Your task to perform on an android device: open app "Facebook Lite" (install if not already installed) and enter user name: "suppers@inbox.com" and password: "downplayed" Image 0: 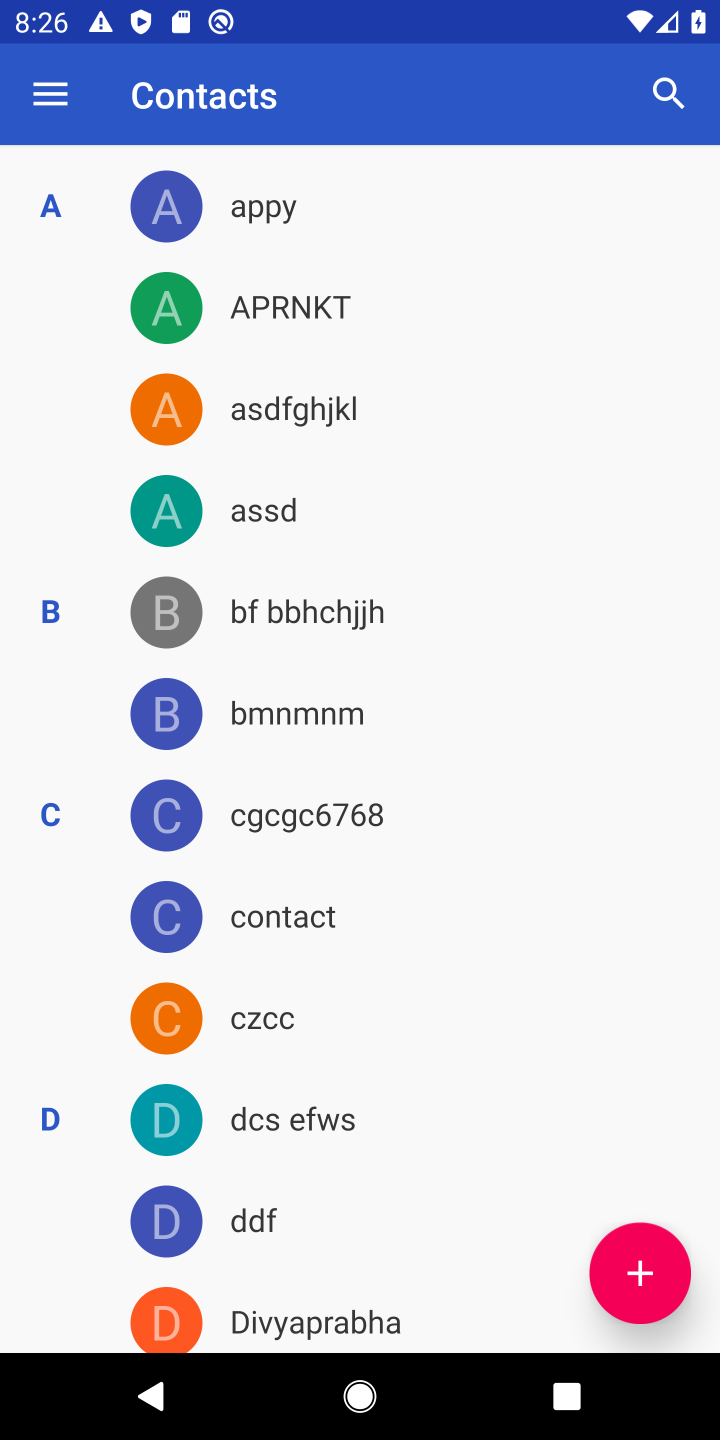
Step 0: press home button
Your task to perform on an android device: open app "Facebook Lite" (install if not already installed) and enter user name: "suppers@inbox.com" and password: "downplayed" Image 1: 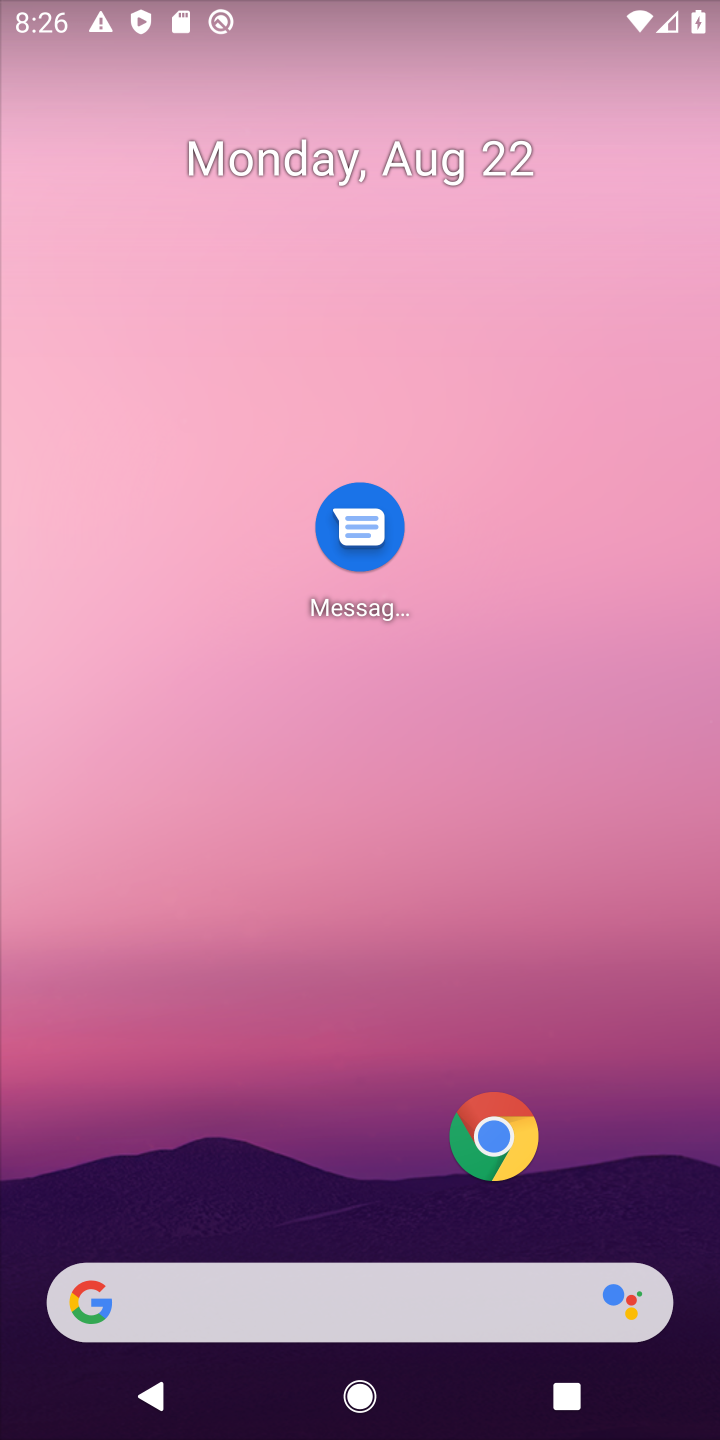
Step 1: drag from (289, 1039) to (274, 300)
Your task to perform on an android device: open app "Facebook Lite" (install if not already installed) and enter user name: "suppers@inbox.com" and password: "downplayed" Image 2: 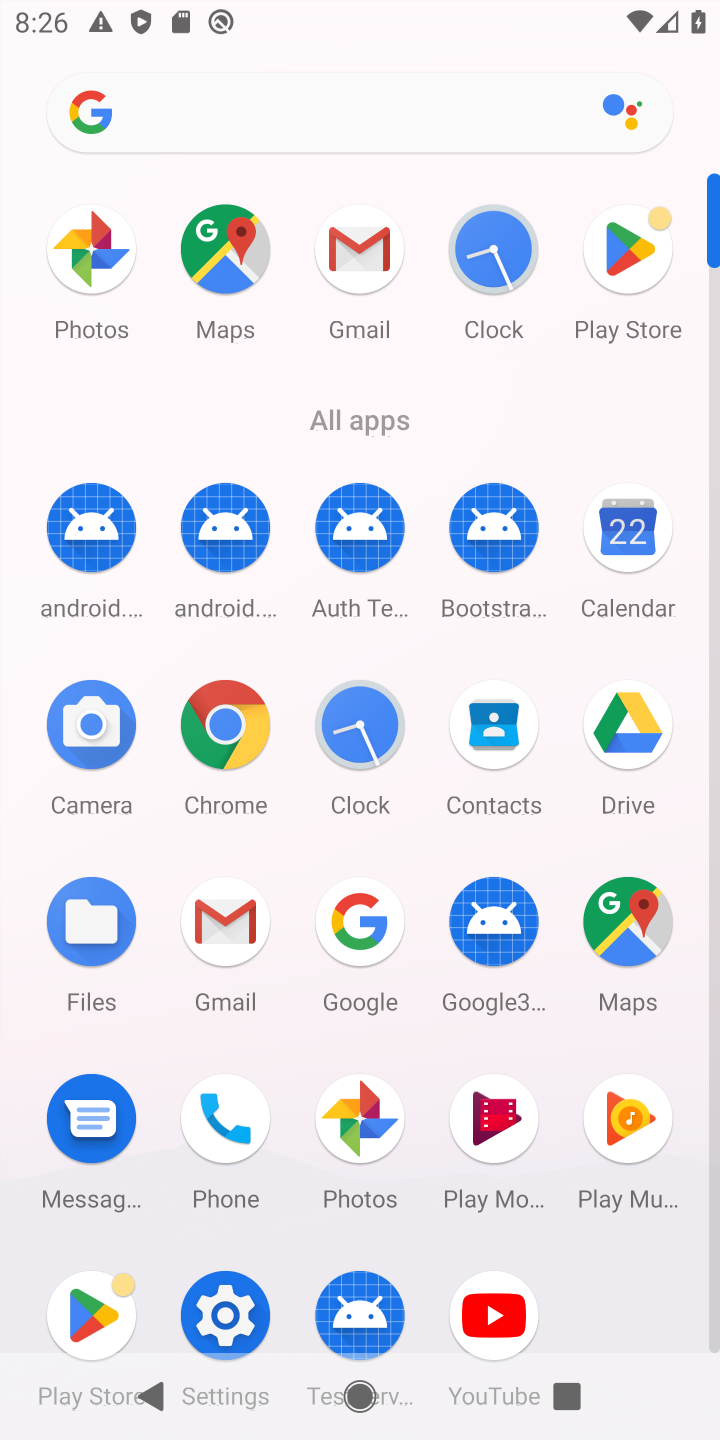
Step 2: click (642, 254)
Your task to perform on an android device: open app "Facebook Lite" (install if not already installed) and enter user name: "suppers@inbox.com" and password: "downplayed" Image 3: 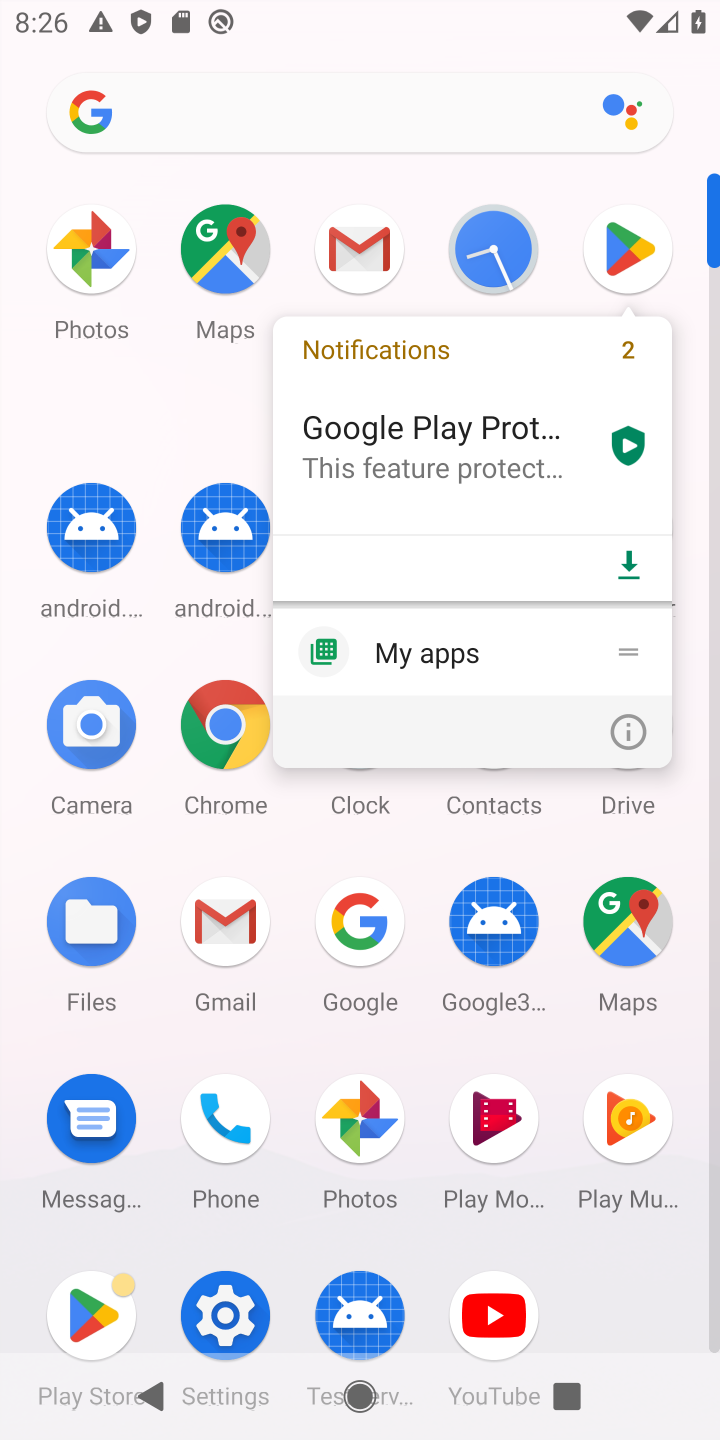
Step 3: click (609, 249)
Your task to perform on an android device: open app "Facebook Lite" (install if not already installed) and enter user name: "suppers@inbox.com" and password: "downplayed" Image 4: 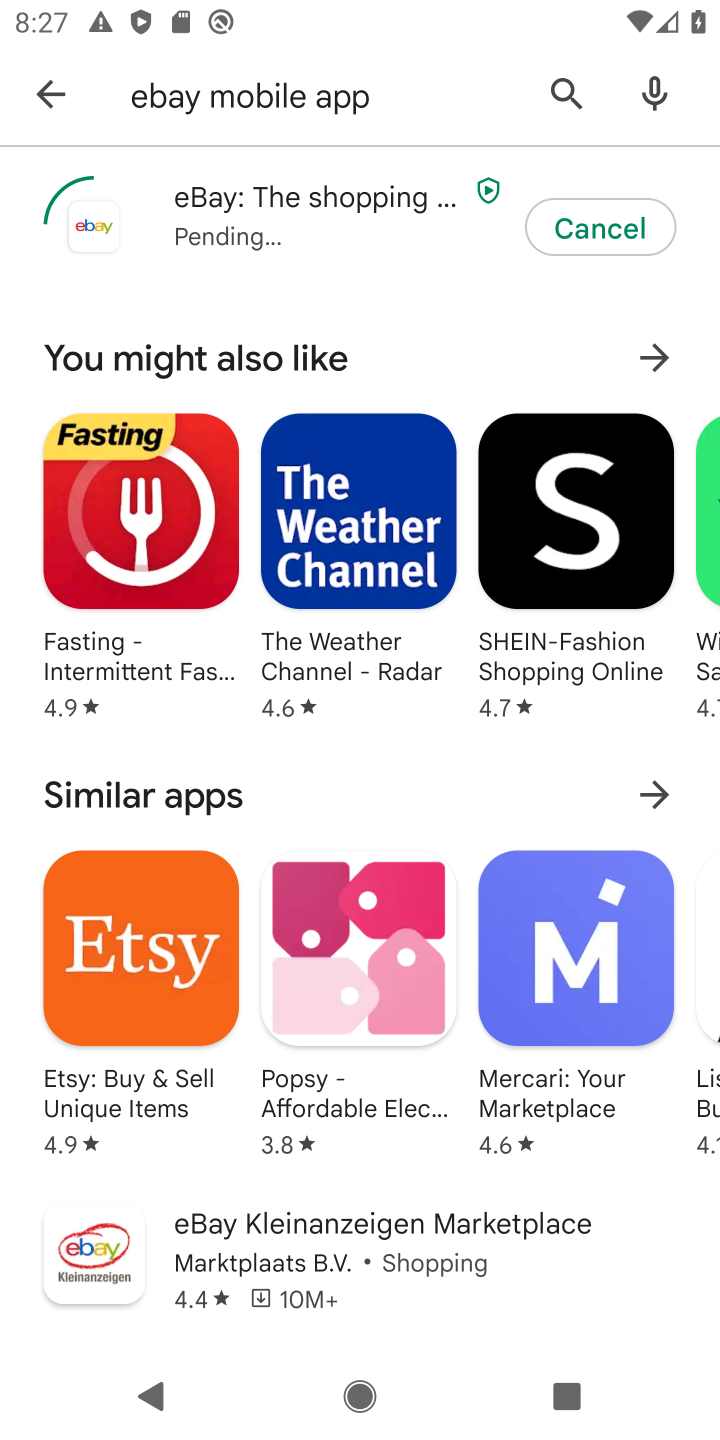
Step 4: click (43, 79)
Your task to perform on an android device: open app "Facebook Lite" (install if not already installed) and enter user name: "suppers@inbox.com" and password: "downplayed" Image 5: 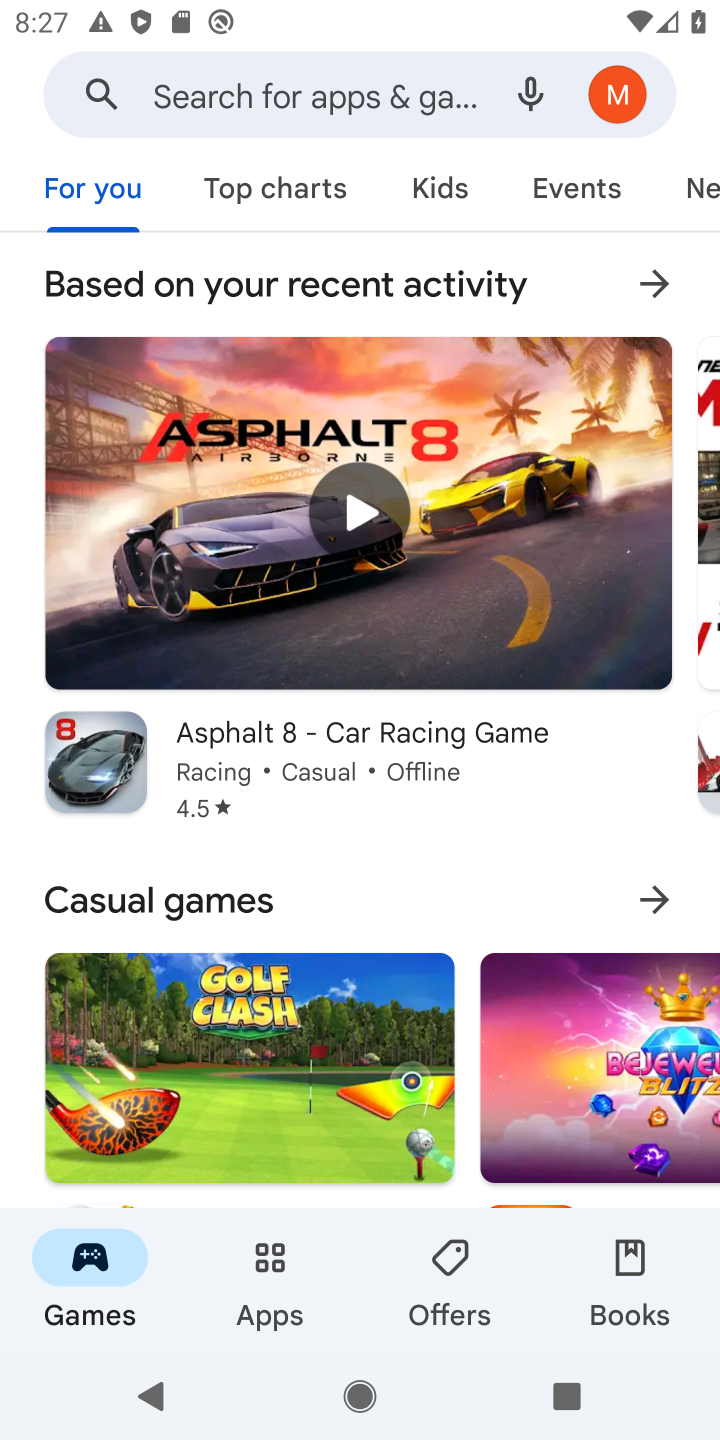
Step 5: click (257, 76)
Your task to perform on an android device: open app "Facebook Lite" (install if not already installed) and enter user name: "suppers@inbox.com" and password: "downplayed" Image 6: 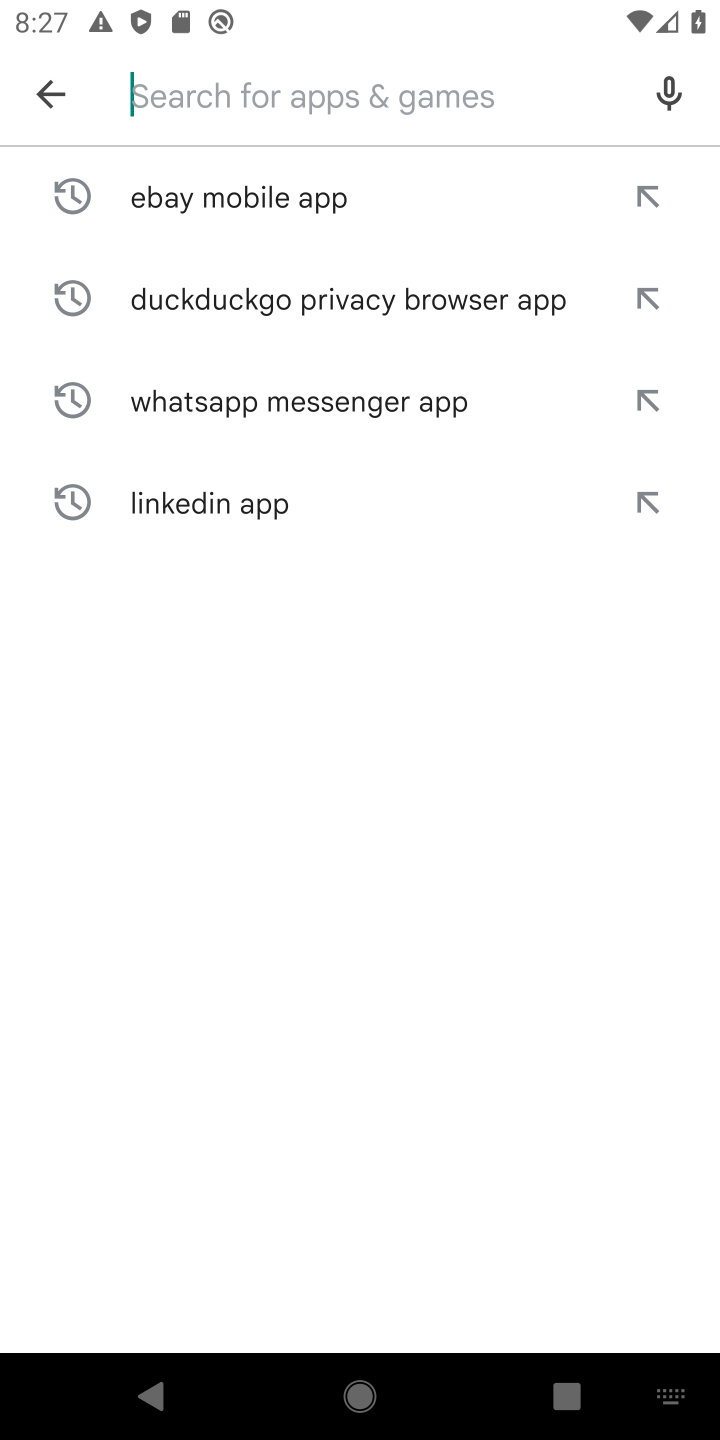
Step 6: click (222, 92)
Your task to perform on an android device: open app "Facebook Lite" (install if not already installed) and enter user name: "suppers@inbox.com" and password: "downplayed" Image 7: 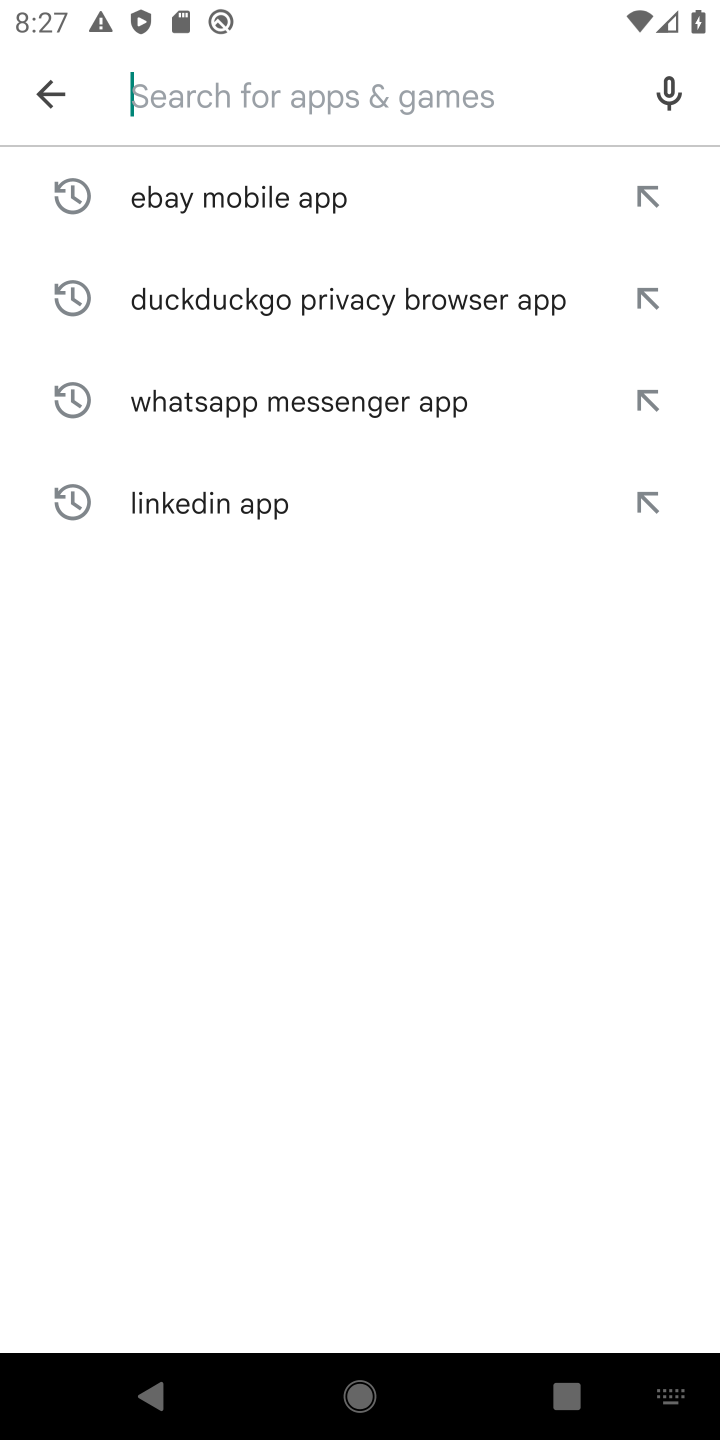
Step 7: type "Facebook Lite "
Your task to perform on an android device: open app "Facebook Lite" (install if not already installed) and enter user name: "suppers@inbox.com" and password: "downplayed" Image 8: 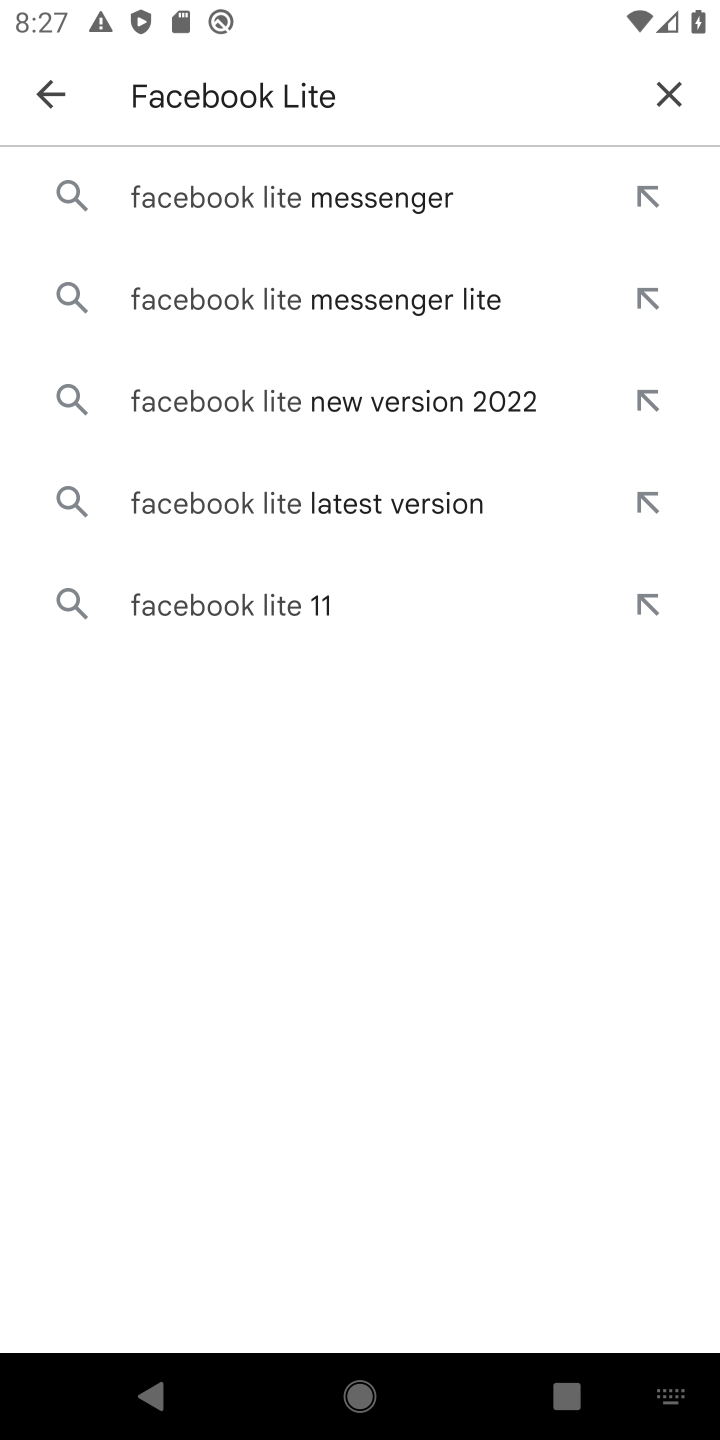
Step 8: click (290, 201)
Your task to perform on an android device: open app "Facebook Lite" (install if not already installed) and enter user name: "suppers@inbox.com" and password: "downplayed" Image 9: 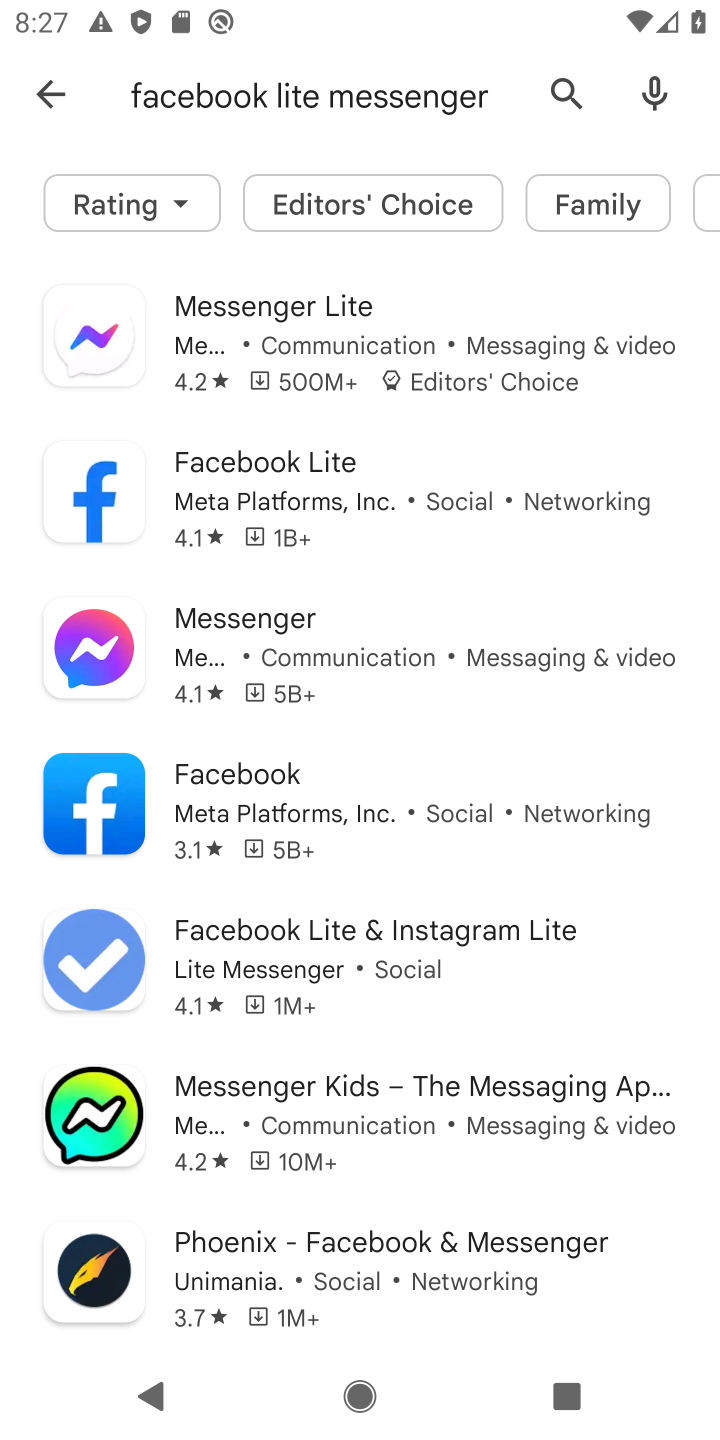
Step 9: click (203, 492)
Your task to perform on an android device: open app "Facebook Lite" (install if not already installed) and enter user name: "suppers@inbox.com" and password: "downplayed" Image 10: 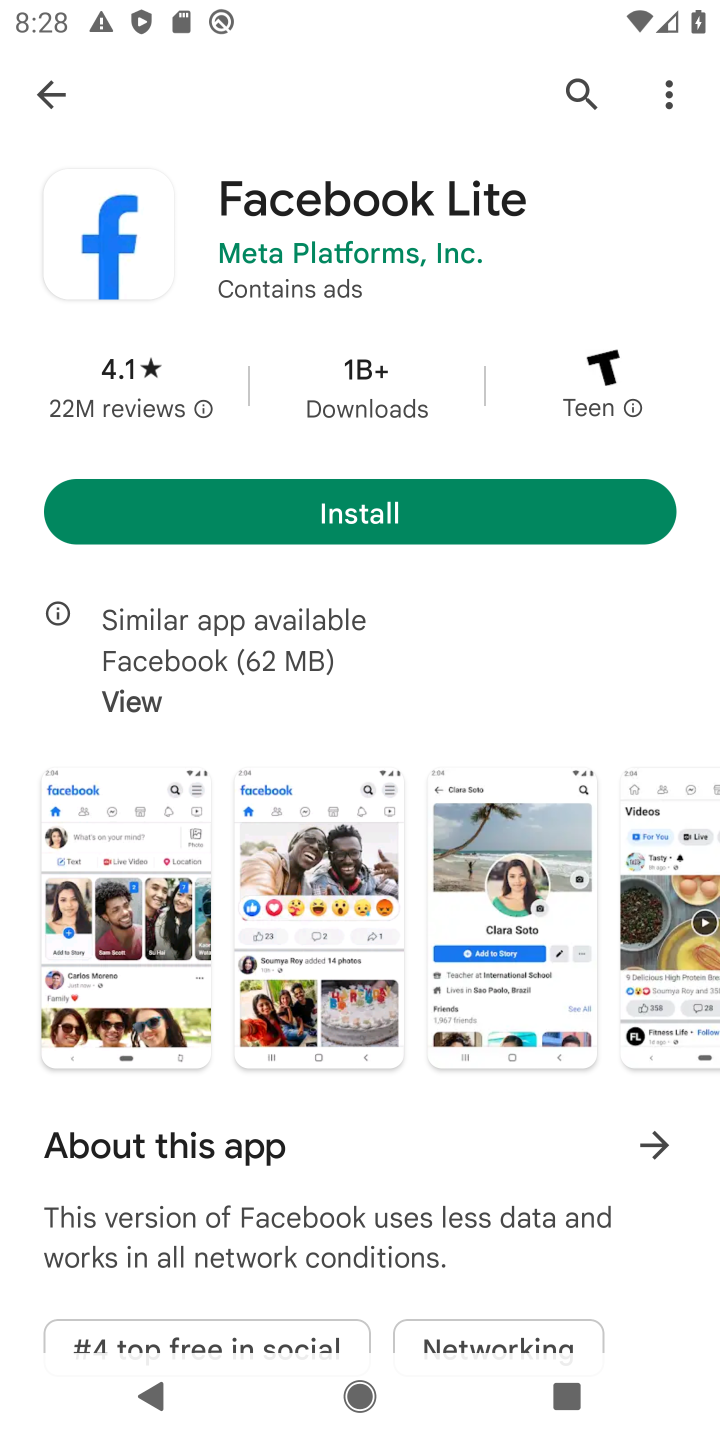
Step 10: click (304, 488)
Your task to perform on an android device: open app "Facebook Lite" (install if not already installed) and enter user name: "suppers@inbox.com" and password: "downplayed" Image 11: 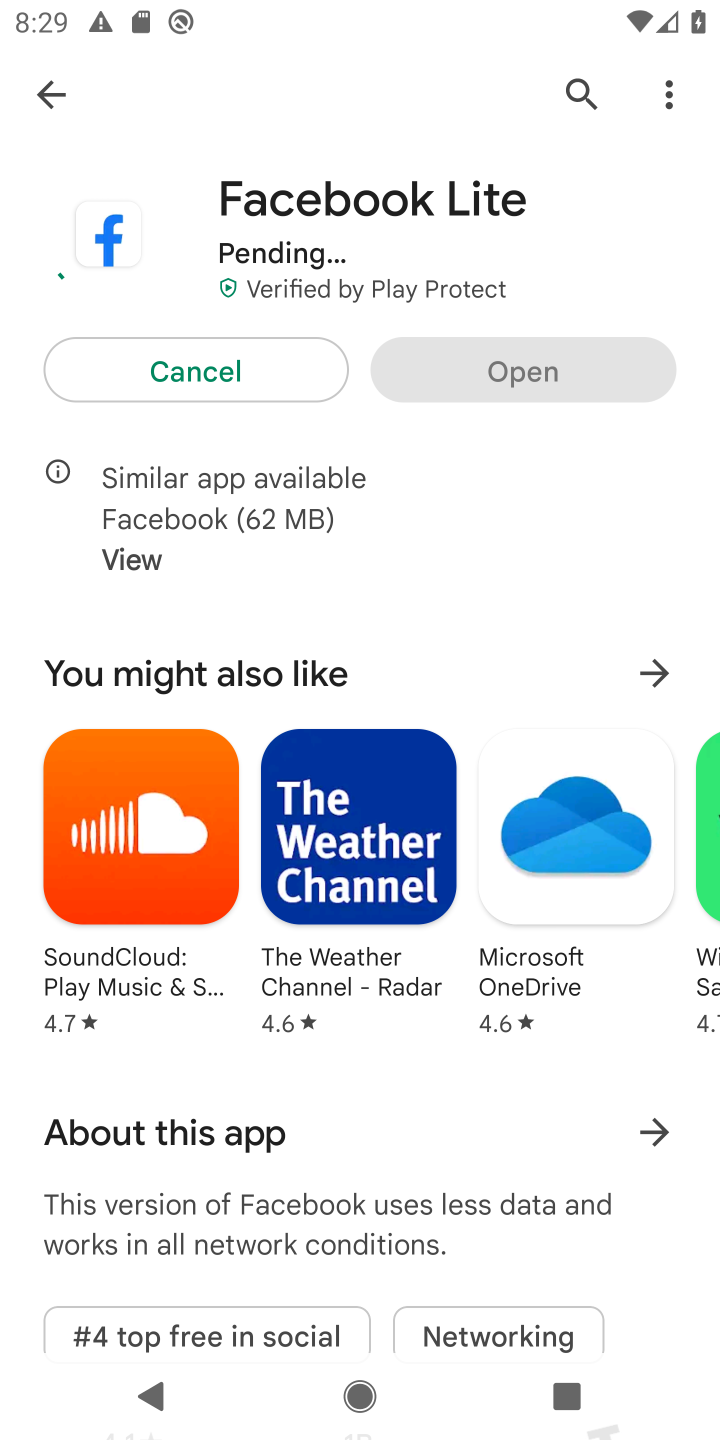
Step 11: task complete